Your task to perform on an android device: open wifi settings Image 0: 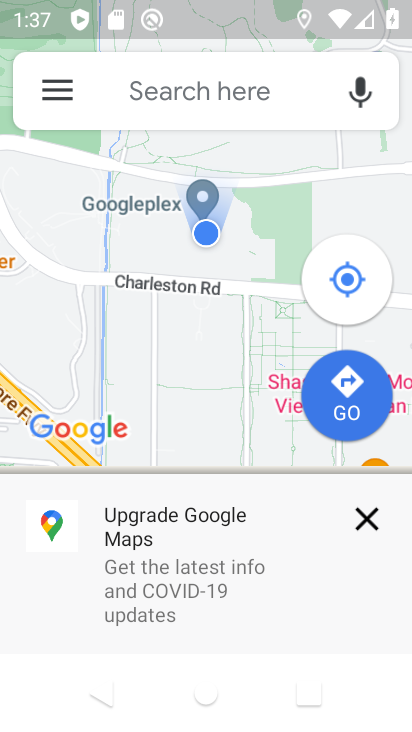
Step 0: drag from (316, 16) to (334, 291)
Your task to perform on an android device: open wifi settings Image 1: 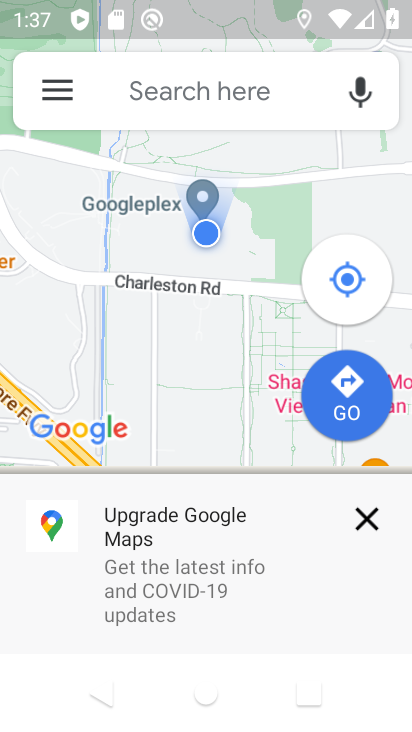
Step 1: click (330, 279)
Your task to perform on an android device: open wifi settings Image 2: 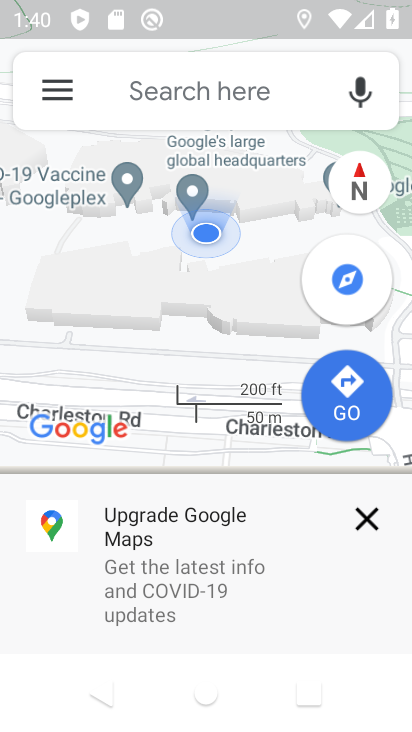
Step 2: drag from (247, 19) to (274, 564)
Your task to perform on an android device: open wifi settings Image 3: 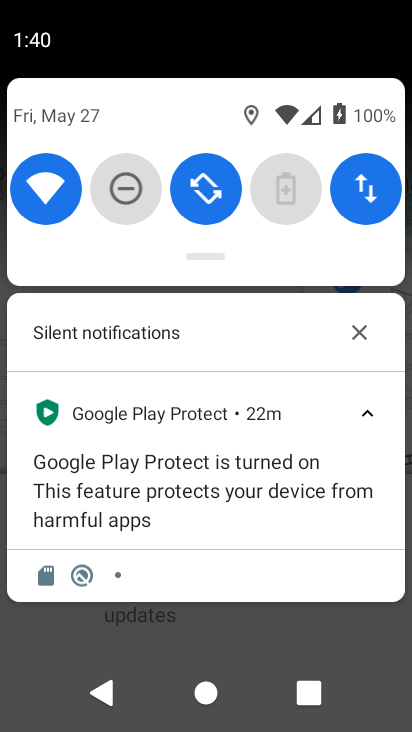
Step 3: click (26, 192)
Your task to perform on an android device: open wifi settings Image 4: 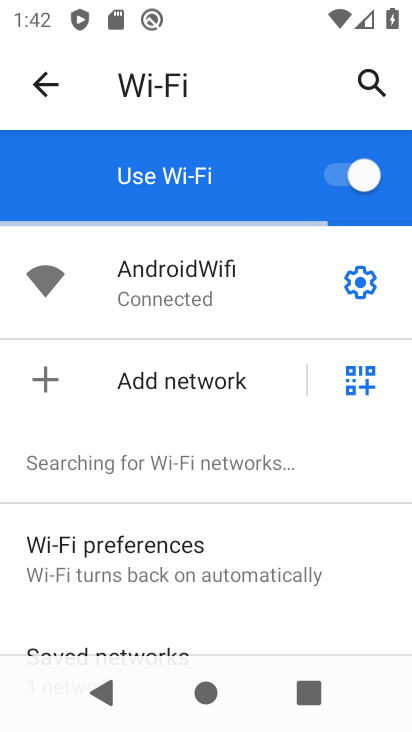
Step 4: task complete